Your task to perform on an android device: toggle pop-ups in chrome Image 0: 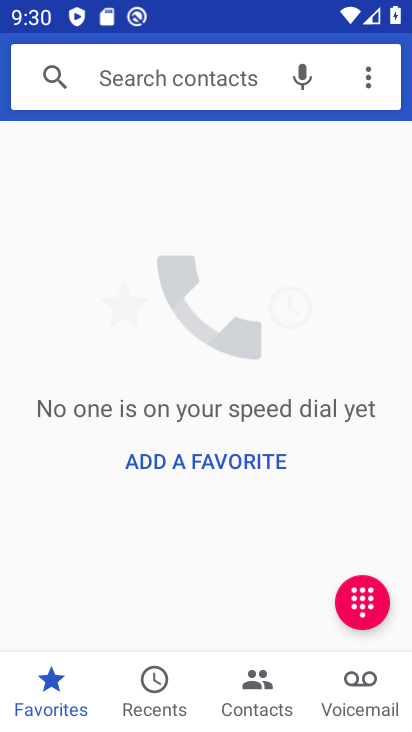
Step 0: press home button
Your task to perform on an android device: toggle pop-ups in chrome Image 1: 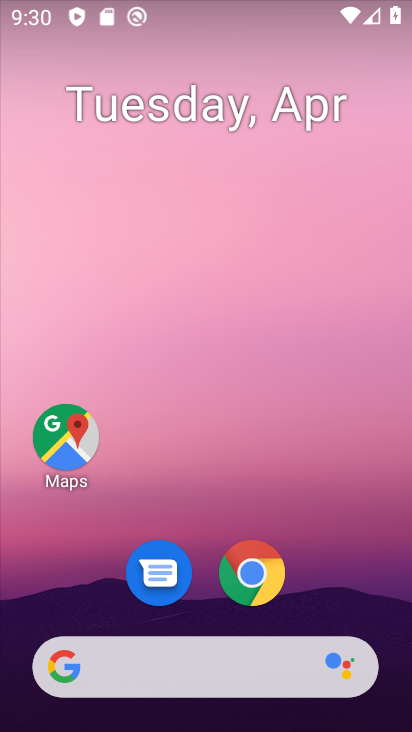
Step 1: click (257, 571)
Your task to perform on an android device: toggle pop-ups in chrome Image 2: 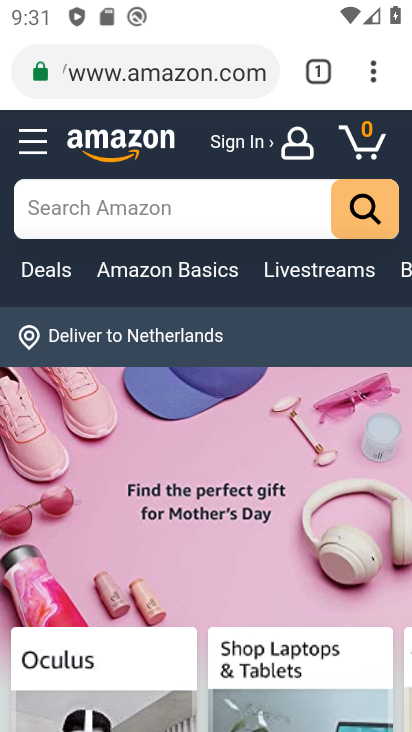
Step 2: click (372, 72)
Your task to perform on an android device: toggle pop-ups in chrome Image 3: 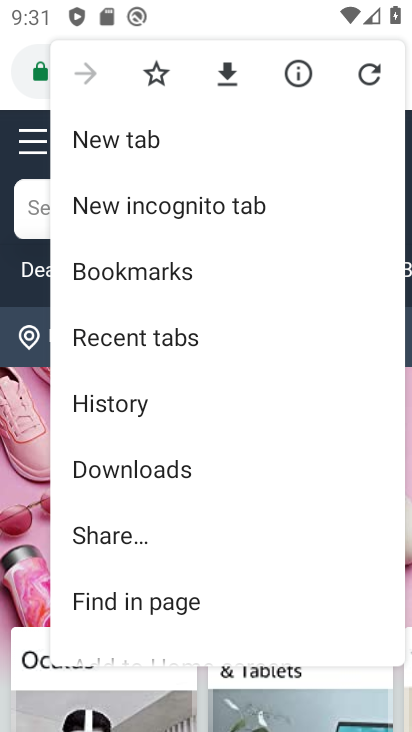
Step 3: drag from (207, 394) to (215, 140)
Your task to perform on an android device: toggle pop-ups in chrome Image 4: 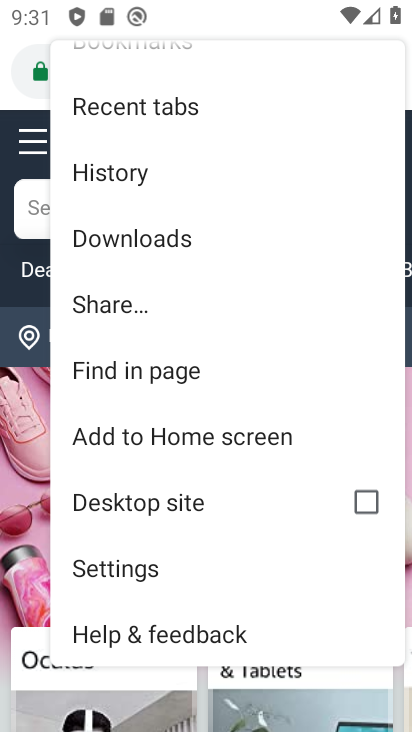
Step 4: click (113, 573)
Your task to perform on an android device: toggle pop-ups in chrome Image 5: 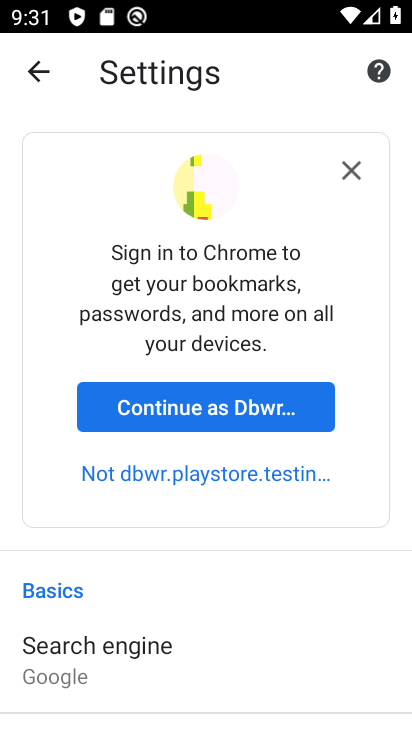
Step 5: drag from (227, 593) to (216, 210)
Your task to perform on an android device: toggle pop-ups in chrome Image 6: 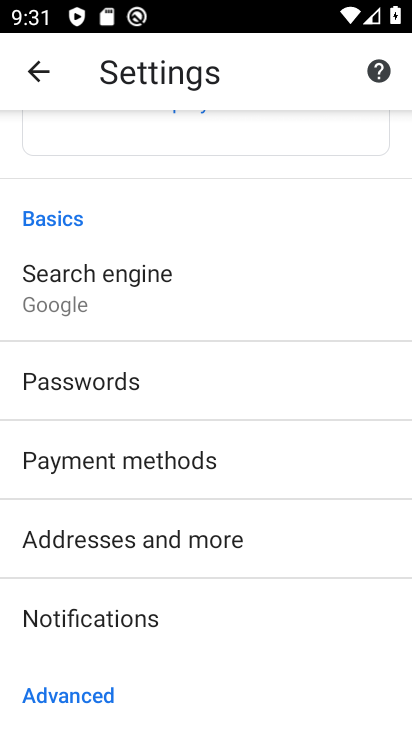
Step 6: drag from (185, 565) to (186, 215)
Your task to perform on an android device: toggle pop-ups in chrome Image 7: 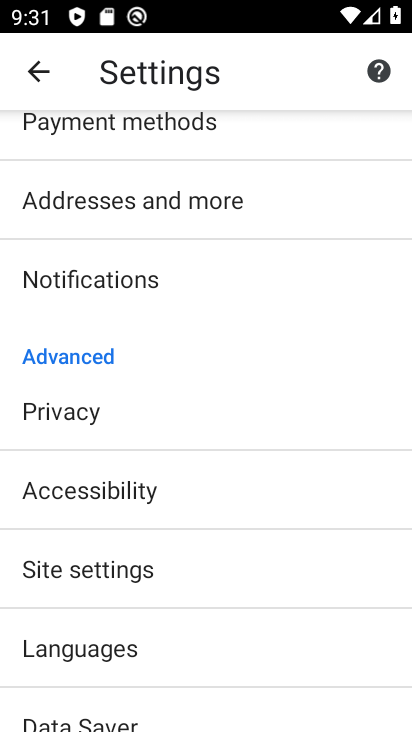
Step 7: click (90, 565)
Your task to perform on an android device: toggle pop-ups in chrome Image 8: 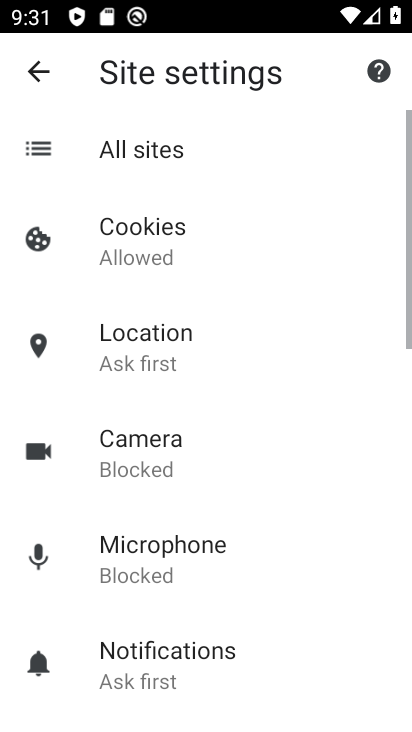
Step 8: drag from (281, 565) to (278, 223)
Your task to perform on an android device: toggle pop-ups in chrome Image 9: 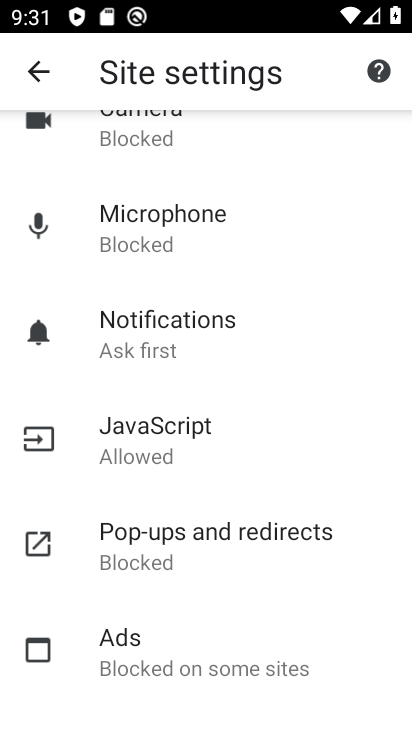
Step 9: click (135, 552)
Your task to perform on an android device: toggle pop-ups in chrome Image 10: 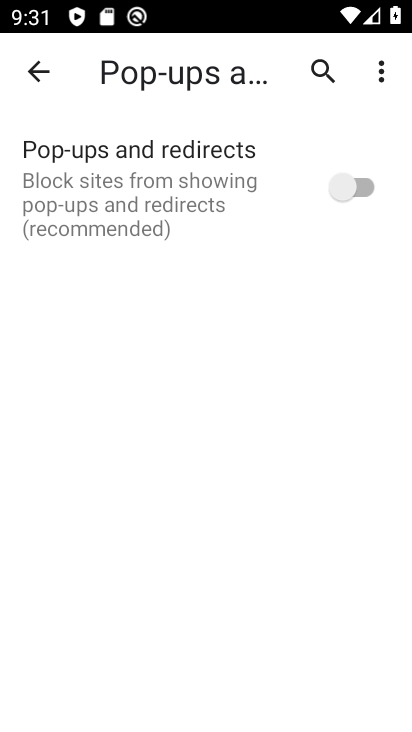
Step 10: click (349, 184)
Your task to perform on an android device: toggle pop-ups in chrome Image 11: 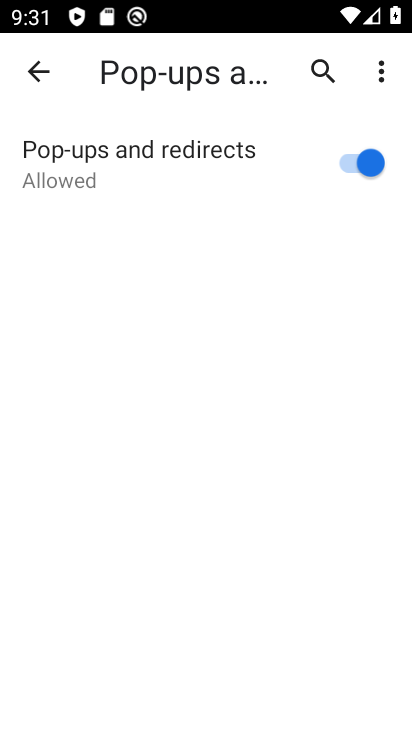
Step 11: task complete